Your task to perform on an android device: Go to Android settings Image 0: 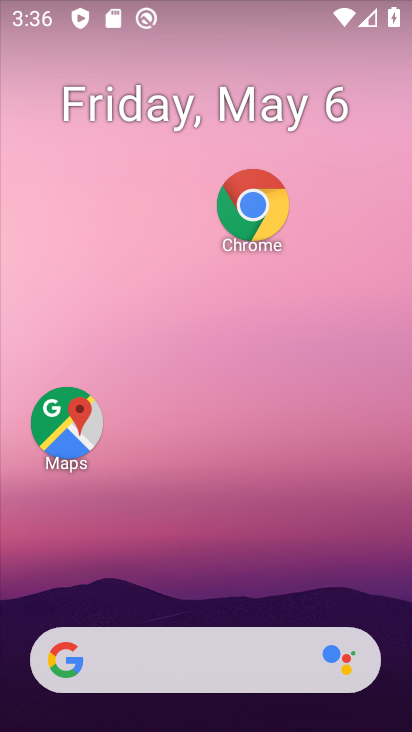
Step 0: drag from (196, 608) to (112, 3)
Your task to perform on an android device: Go to Android settings Image 1: 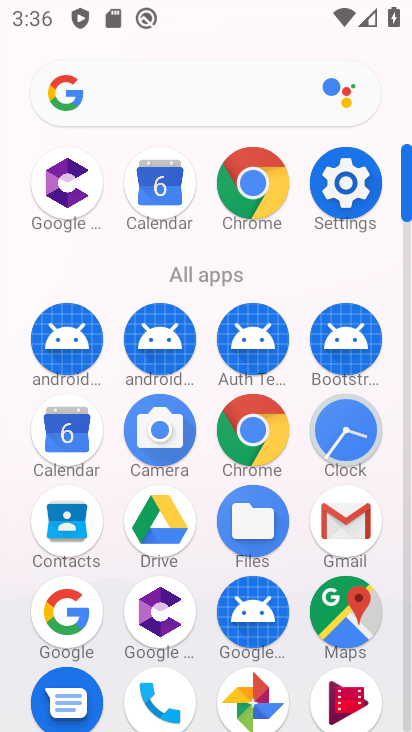
Step 1: click (340, 175)
Your task to perform on an android device: Go to Android settings Image 2: 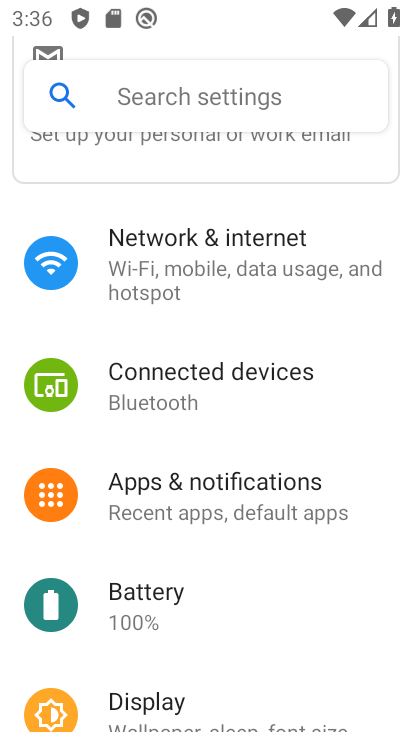
Step 2: drag from (245, 581) to (184, 159)
Your task to perform on an android device: Go to Android settings Image 3: 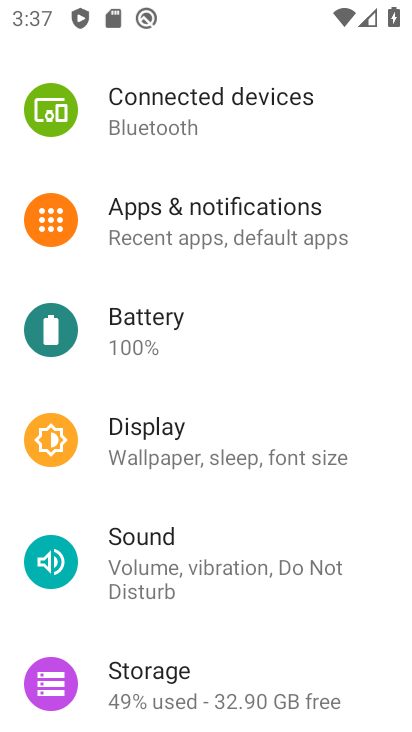
Step 3: drag from (211, 670) to (138, 134)
Your task to perform on an android device: Go to Android settings Image 4: 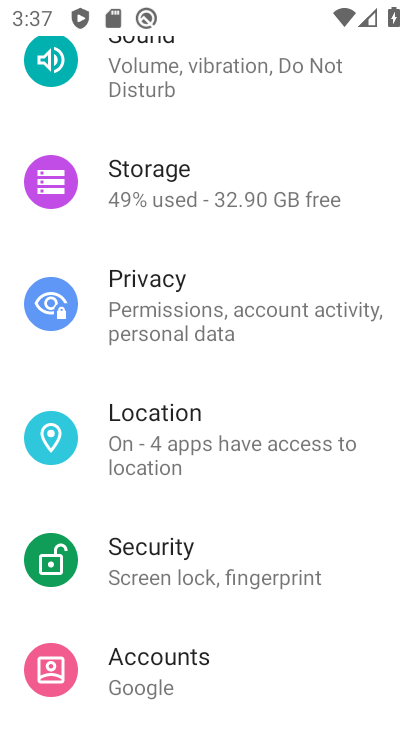
Step 4: drag from (212, 629) to (159, 266)
Your task to perform on an android device: Go to Android settings Image 5: 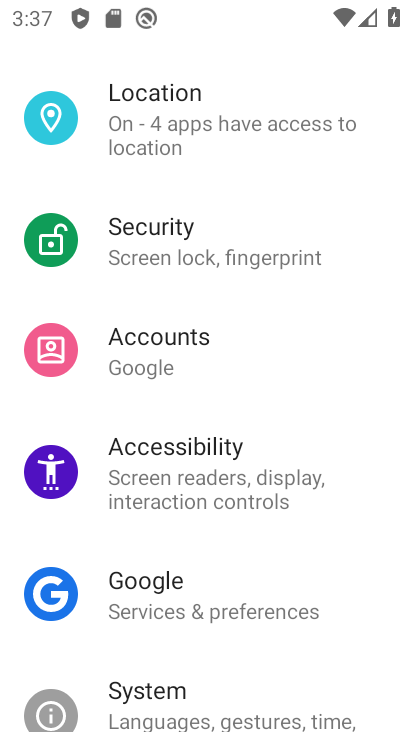
Step 5: drag from (204, 670) to (163, 218)
Your task to perform on an android device: Go to Android settings Image 6: 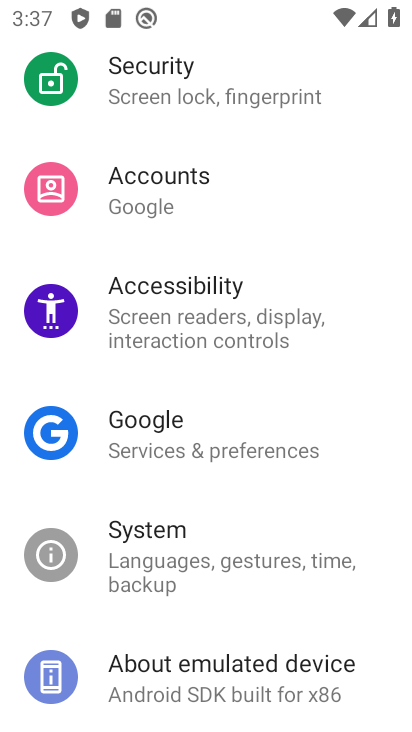
Step 6: click (242, 674)
Your task to perform on an android device: Go to Android settings Image 7: 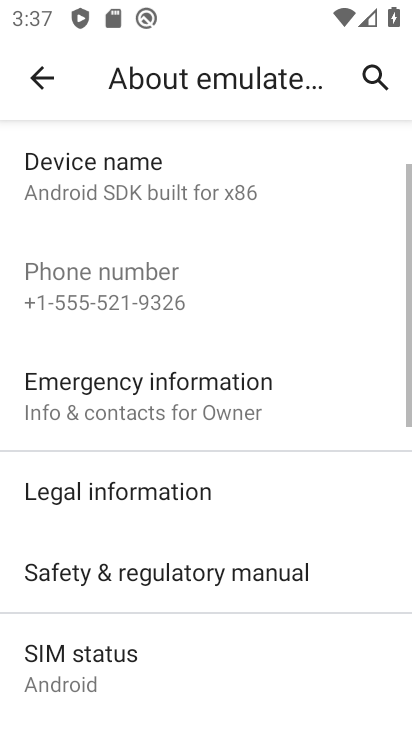
Step 7: drag from (165, 664) to (135, 218)
Your task to perform on an android device: Go to Android settings Image 8: 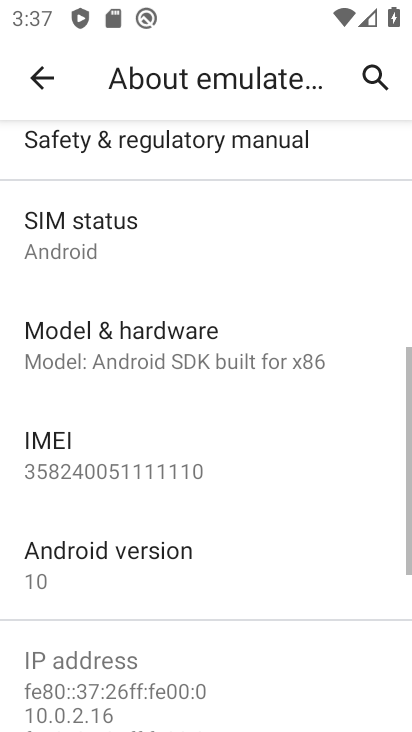
Step 8: click (117, 544)
Your task to perform on an android device: Go to Android settings Image 9: 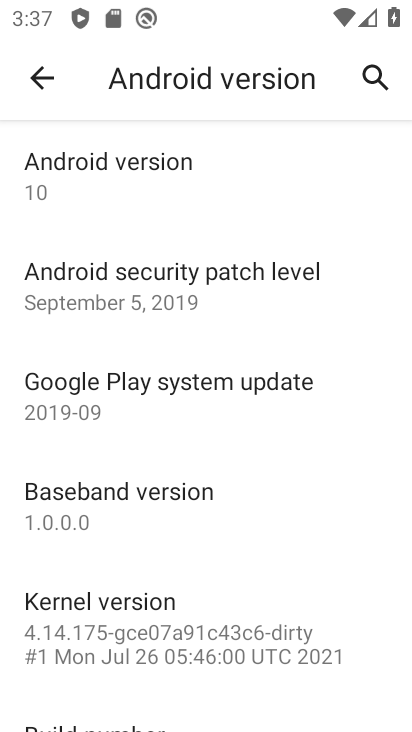
Step 9: drag from (222, 623) to (143, 169)
Your task to perform on an android device: Go to Android settings Image 10: 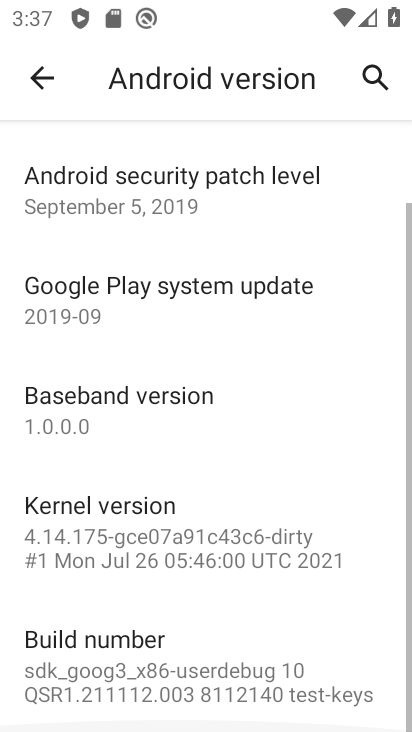
Step 10: drag from (142, 169) to (124, 731)
Your task to perform on an android device: Go to Android settings Image 11: 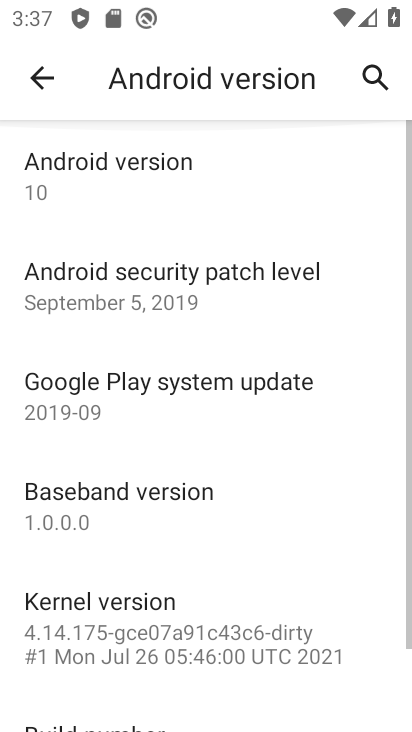
Step 11: click (112, 173)
Your task to perform on an android device: Go to Android settings Image 12: 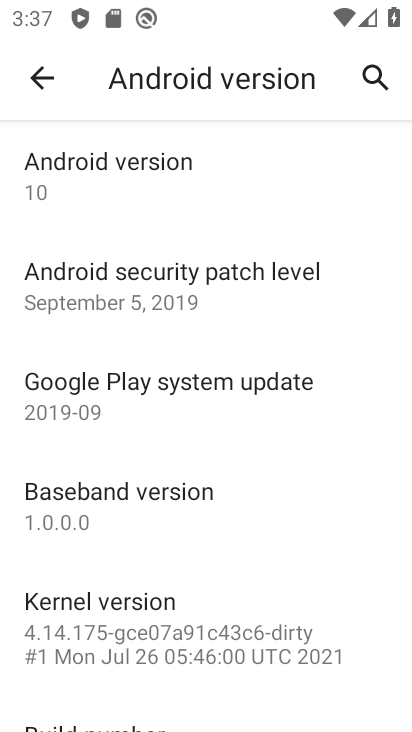
Step 12: task complete